Your task to perform on an android device: Do I have any events today? Image 0: 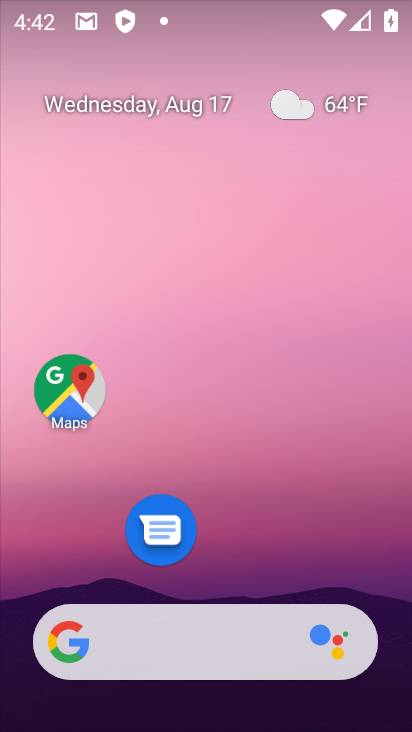
Step 0: click (230, 99)
Your task to perform on an android device: Do I have any events today? Image 1: 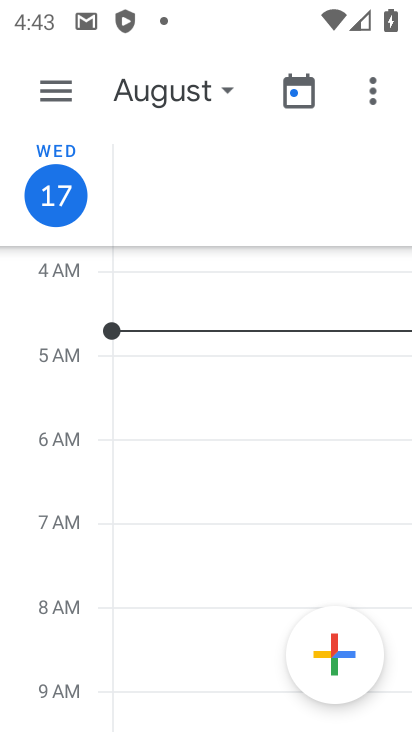
Step 1: press home button
Your task to perform on an android device: Do I have any events today? Image 2: 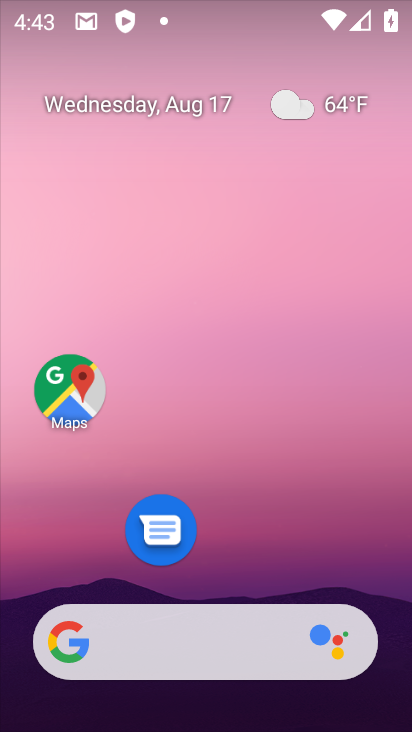
Step 2: drag from (223, 577) to (205, 89)
Your task to perform on an android device: Do I have any events today? Image 3: 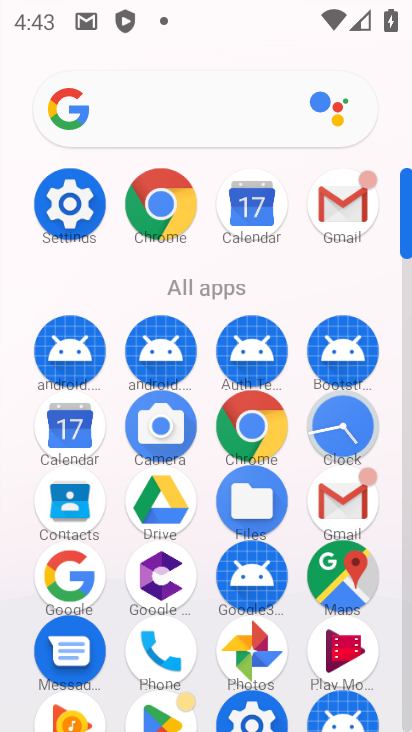
Step 3: click (258, 210)
Your task to perform on an android device: Do I have any events today? Image 4: 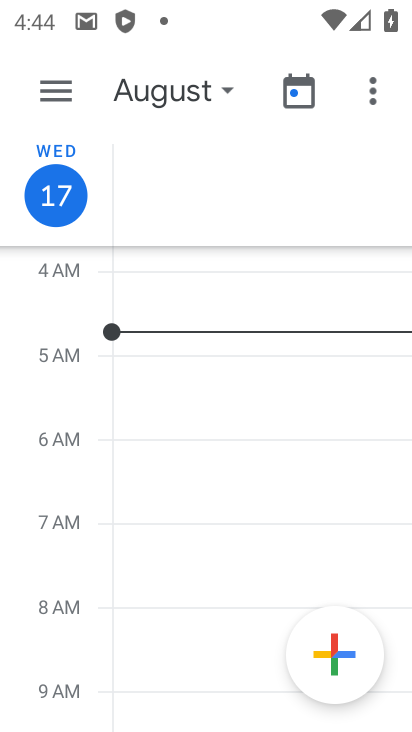
Step 4: task complete